Your task to perform on an android device: open wifi settings Image 0: 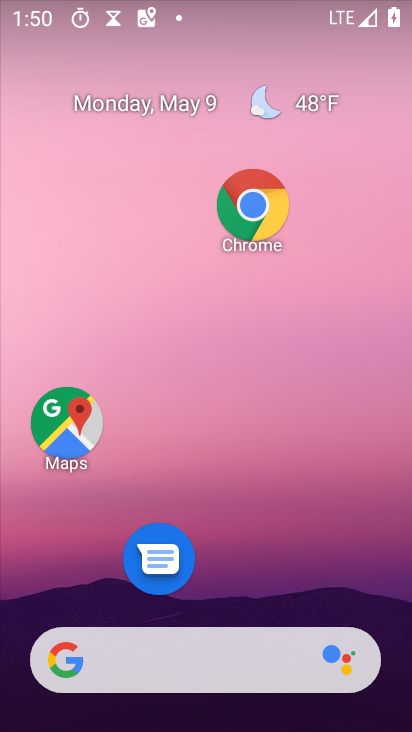
Step 0: drag from (265, 584) to (341, 284)
Your task to perform on an android device: open wifi settings Image 1: 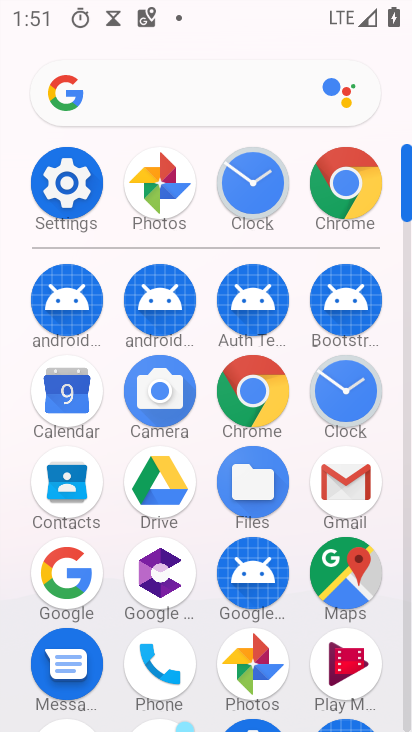
Step 1: click (76, 180)
Your task to perform on an android device: open wifi settings Image 2: 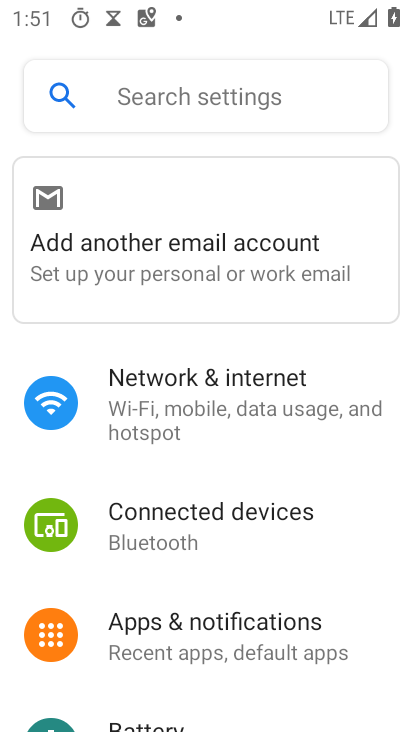
Step 2: click (180, 392)
Your task to perform on an android device: open wifi settings Image 3: 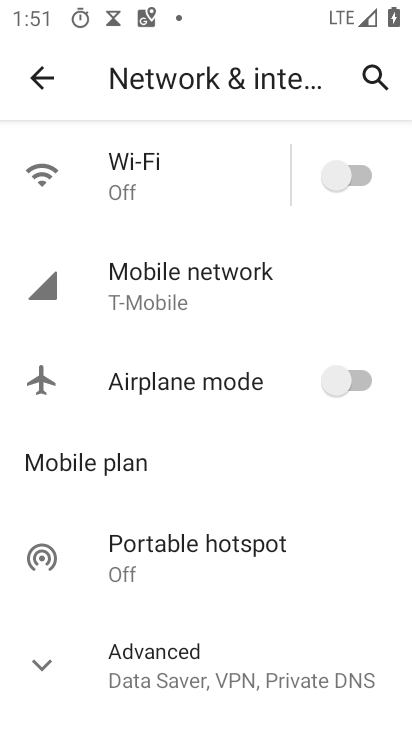
Step 3: click (314, 168)
Your task to perform on an android device: open wifi settings Image 4: 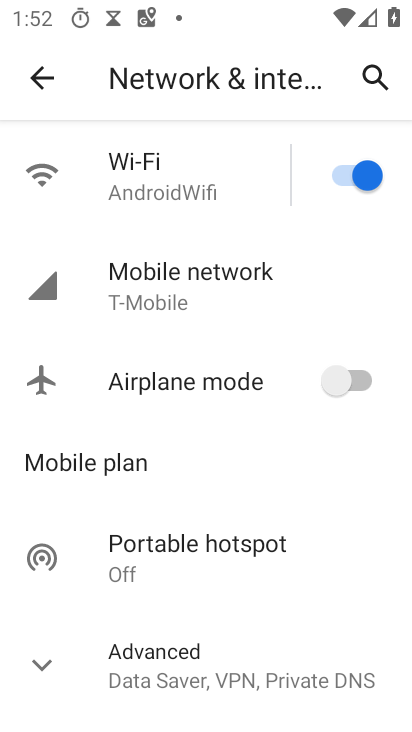
Step 4: task complete